Your task to perform on an android device: Go to privacy settings Image 0: 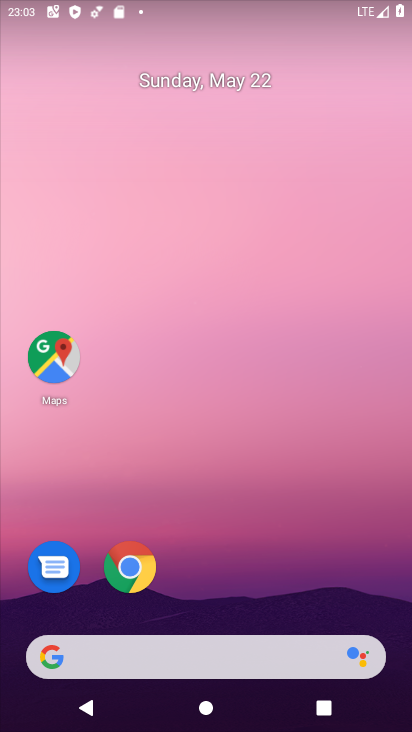
Step 0: drag from (396, 623) to (364, 24)
Your task to perform on an android device: Go to privacy settings Image 1: 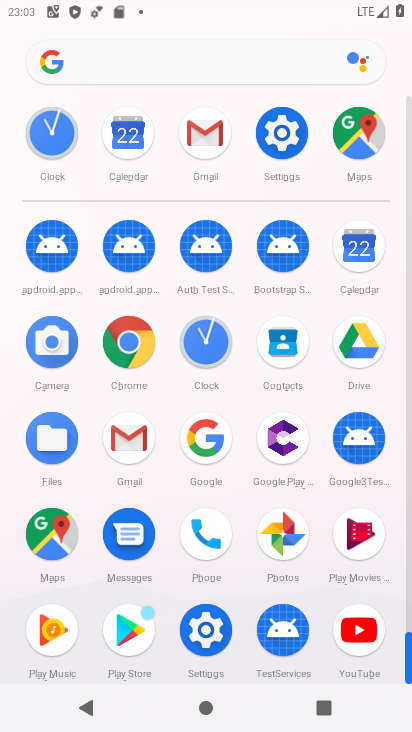
Step 1: click (206, 633)
Your task to perform on an android device: Go to privacy settings Image 2: 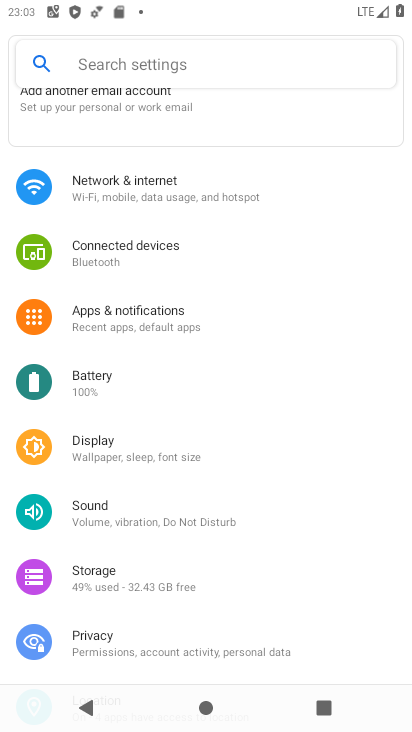
Step 2: click (119, 639)
Your task to perform on an android device: Go to privacy settings Image 3: 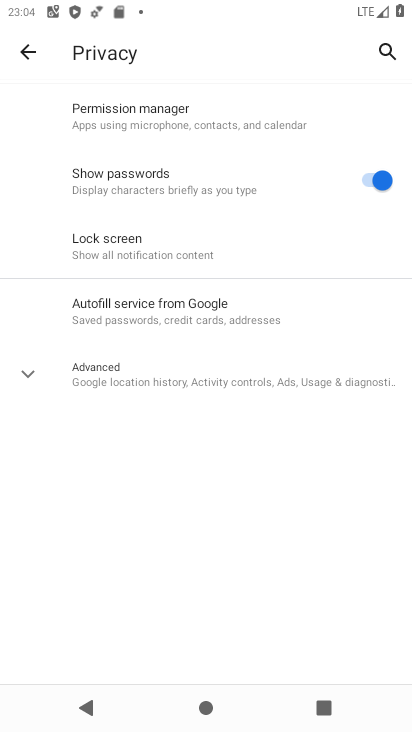
Step 3: click (24, 369)
Your task to perform on an android device: Go to privacy settings Image 4: 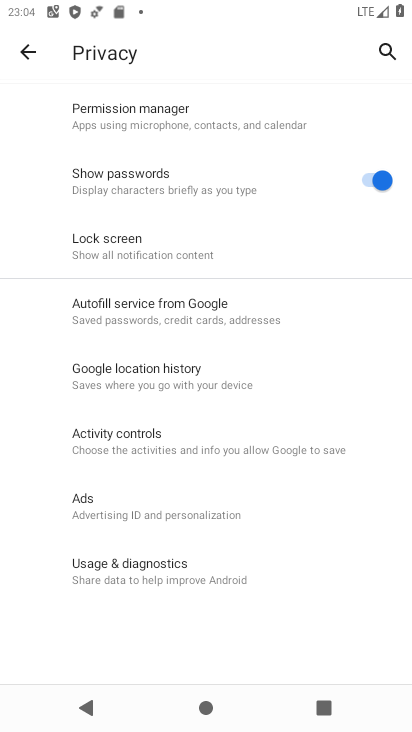
Step 4: task complete